Your task to perform on an android device: Go to battery settings Image 0: 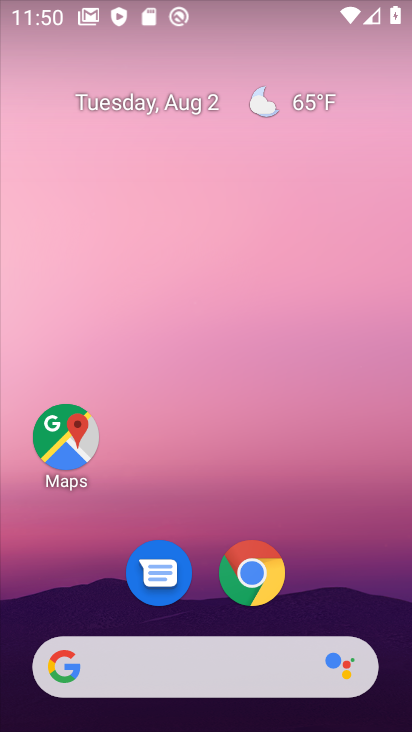
Step 0: drag from (212, 568) to (241, 225)
Your task to perform on an android device: Go to battery settings Image 1: 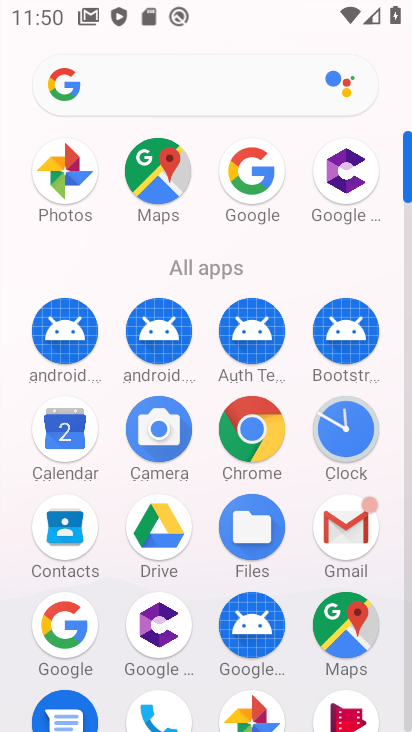
Step 1: drag from (208, 529) to (233, 182)
Your task to perform on an android device: Go to battery settings Image 2: 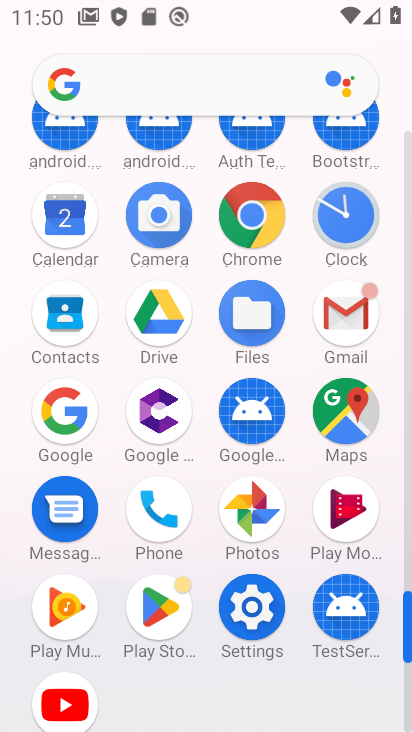
Step 2: click (251, 614)
Your task to perform on an android device: Go to battery settings Image 3: 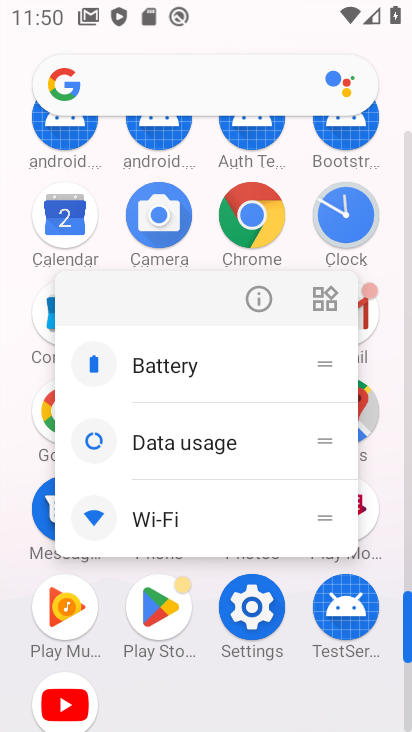
Step 3: click (251, 297)
Your task to perform on an android device: Go to battery settings Image 4: 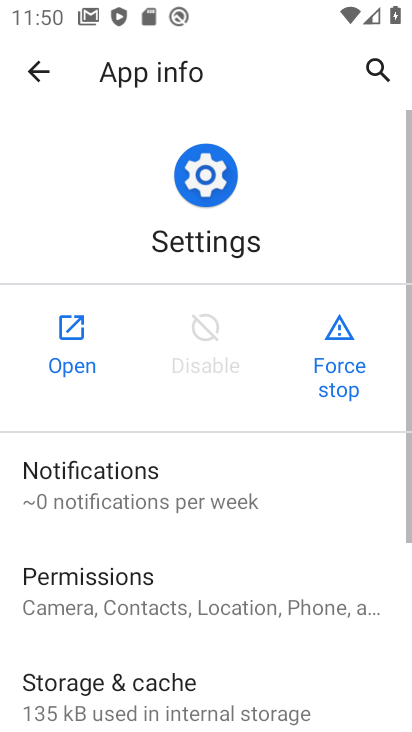
Step 4: click (73, 376)
Your task to perform on an android device: Go to battery settings Image 5: 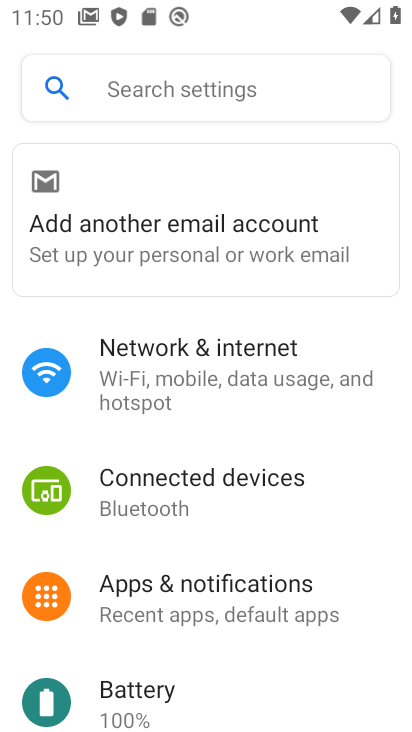
Step 5: drag from (170, 648) to (229, 275)
Your task to perform on an android device: Go to battery settings Image 6: 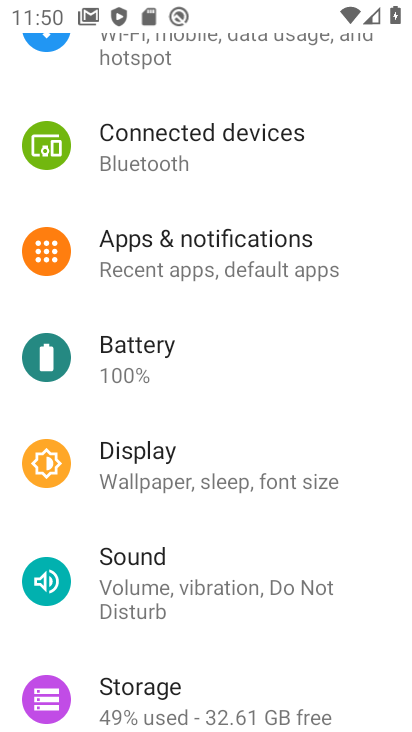
Step 6: click (195, 357)
Your task to perform on an android device: Go to battery settings Image 7: 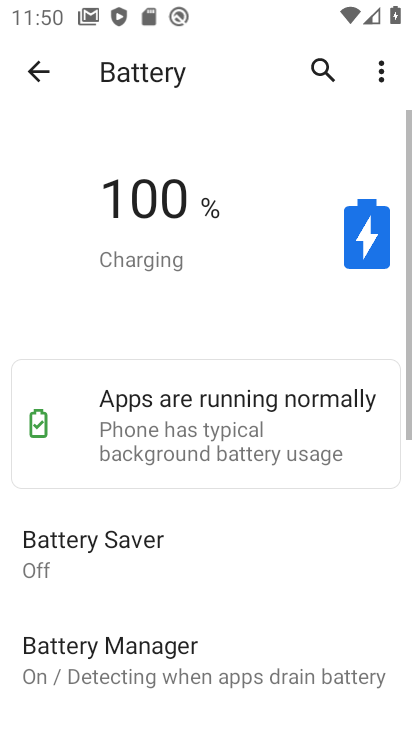
Step 7: task complete